Your task to perform on an android device: toggle pop-ups in chrome Image 0: 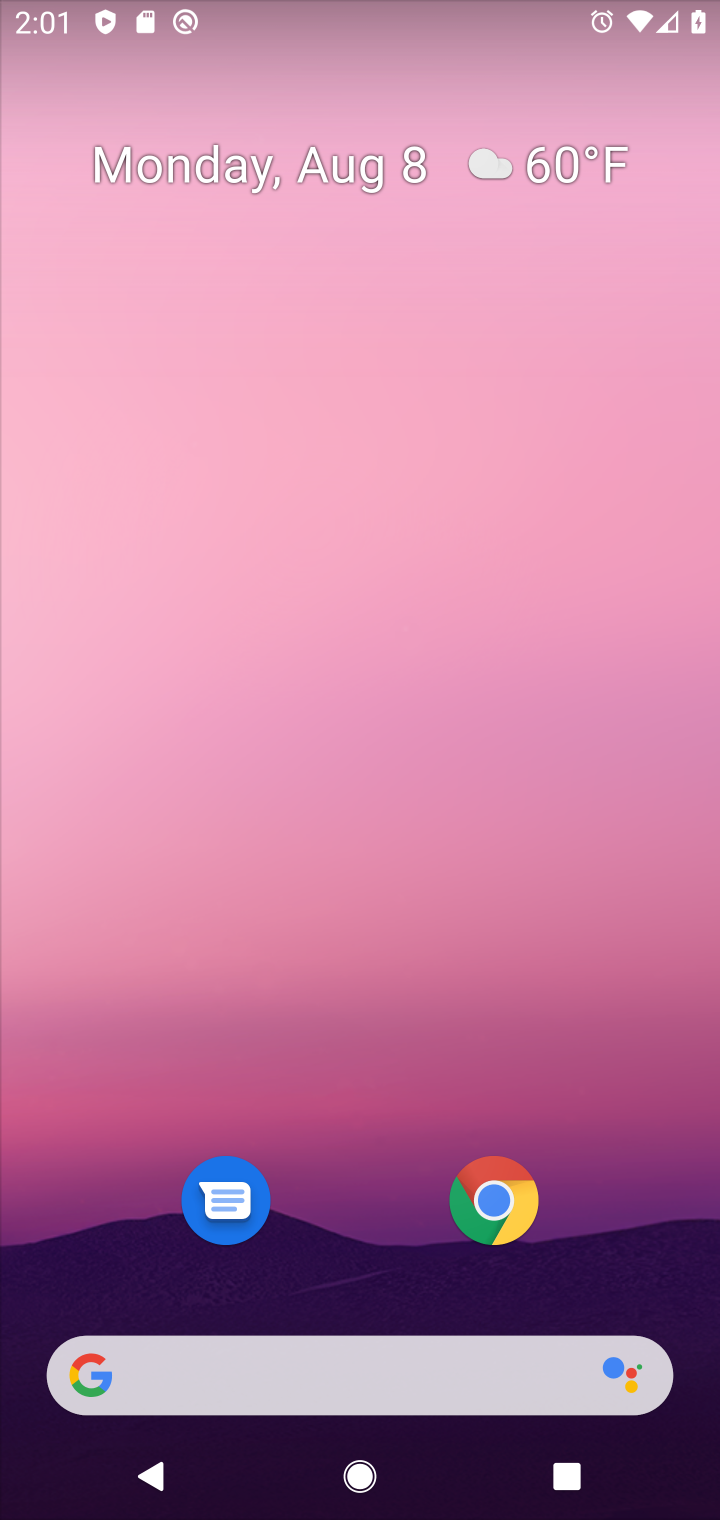
Step 0: click (490, 1184)
Your task to perform on an android device: toggle pop-ups in chrome Image 1: 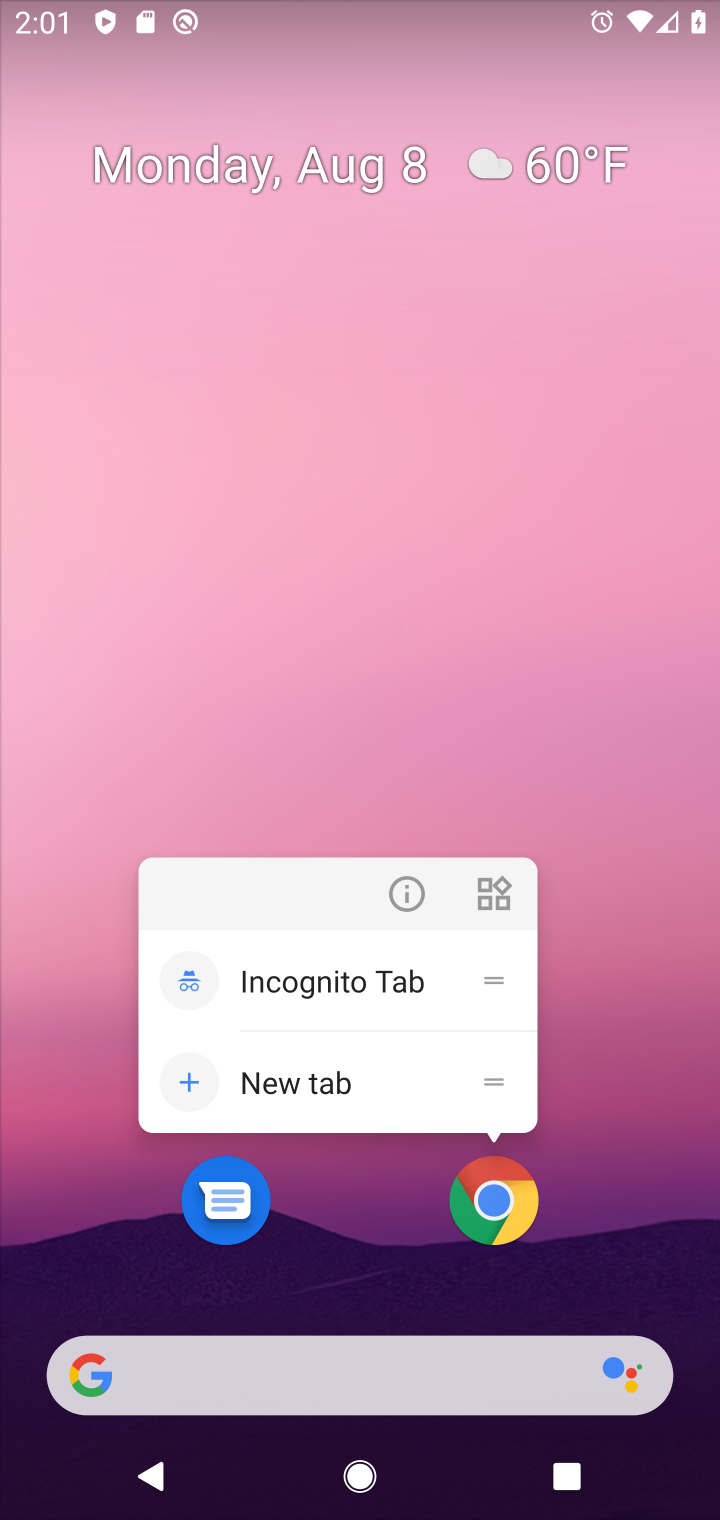
Step 1: click (619, 1097)
Your task to perform on an android device: toggle pop-ups in chrome Image 2: 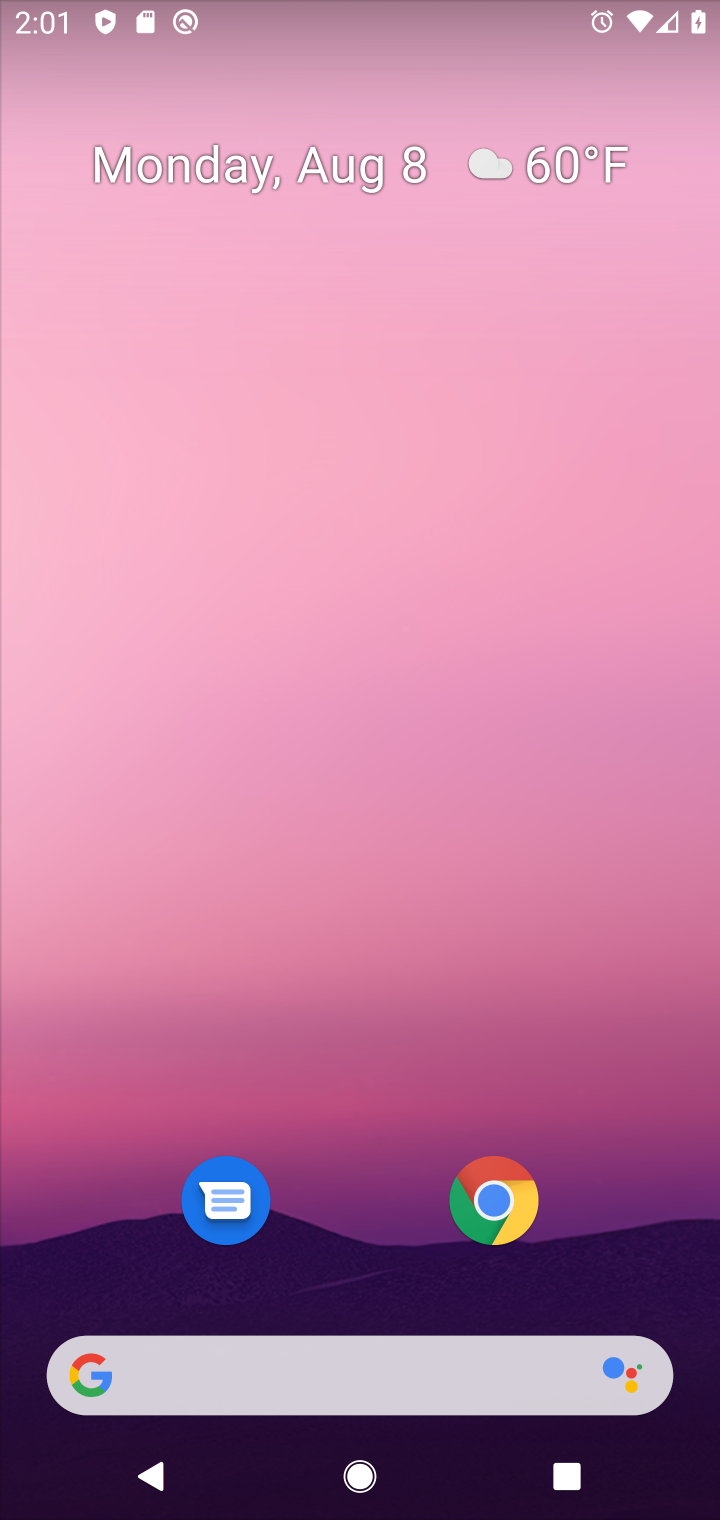
Step 2: drag from (601, 1277) to (589, 91)
Your task to perform on an android device: toggle pop-ups in chrome Image 3: 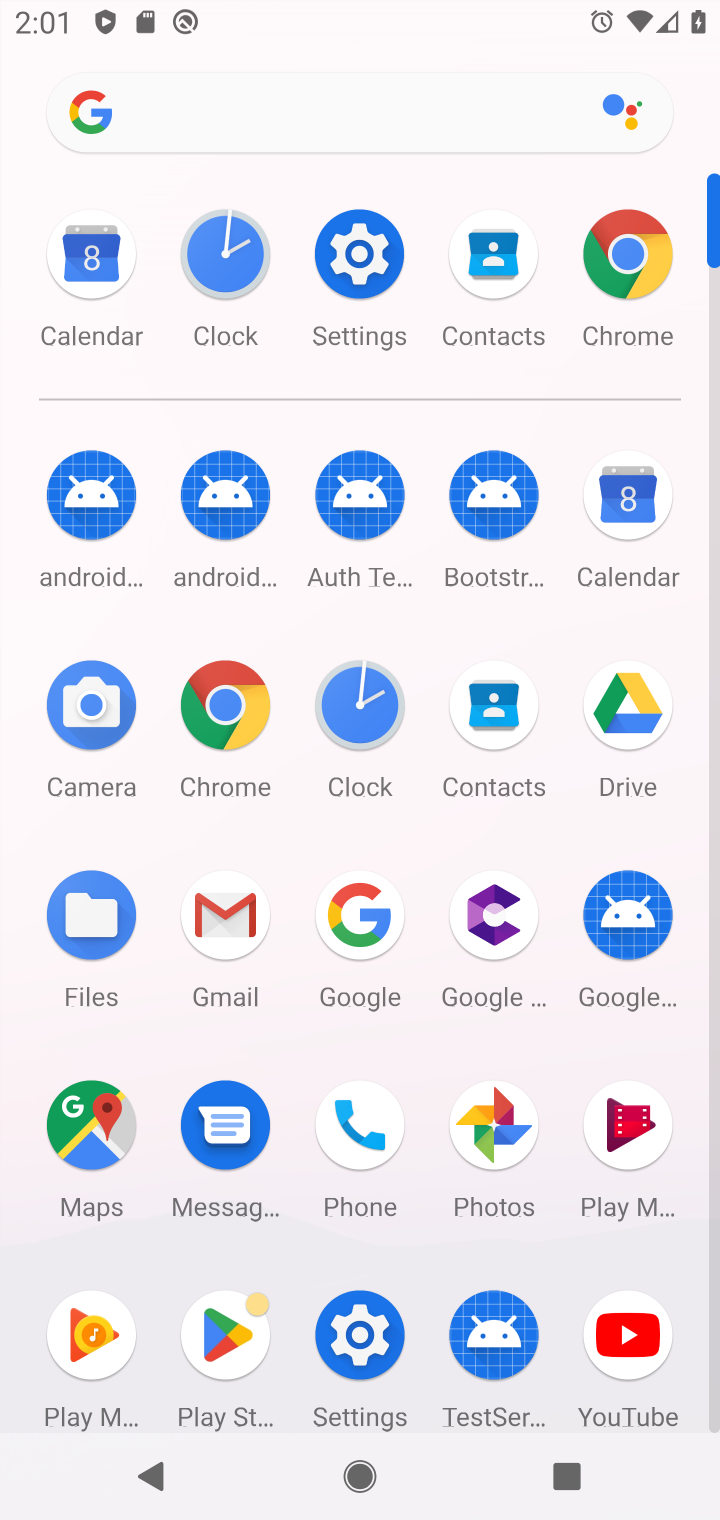
Step 3: click (212, 698)
Your task to perform on an android device: toggle pop-ups in chrome Image 4: 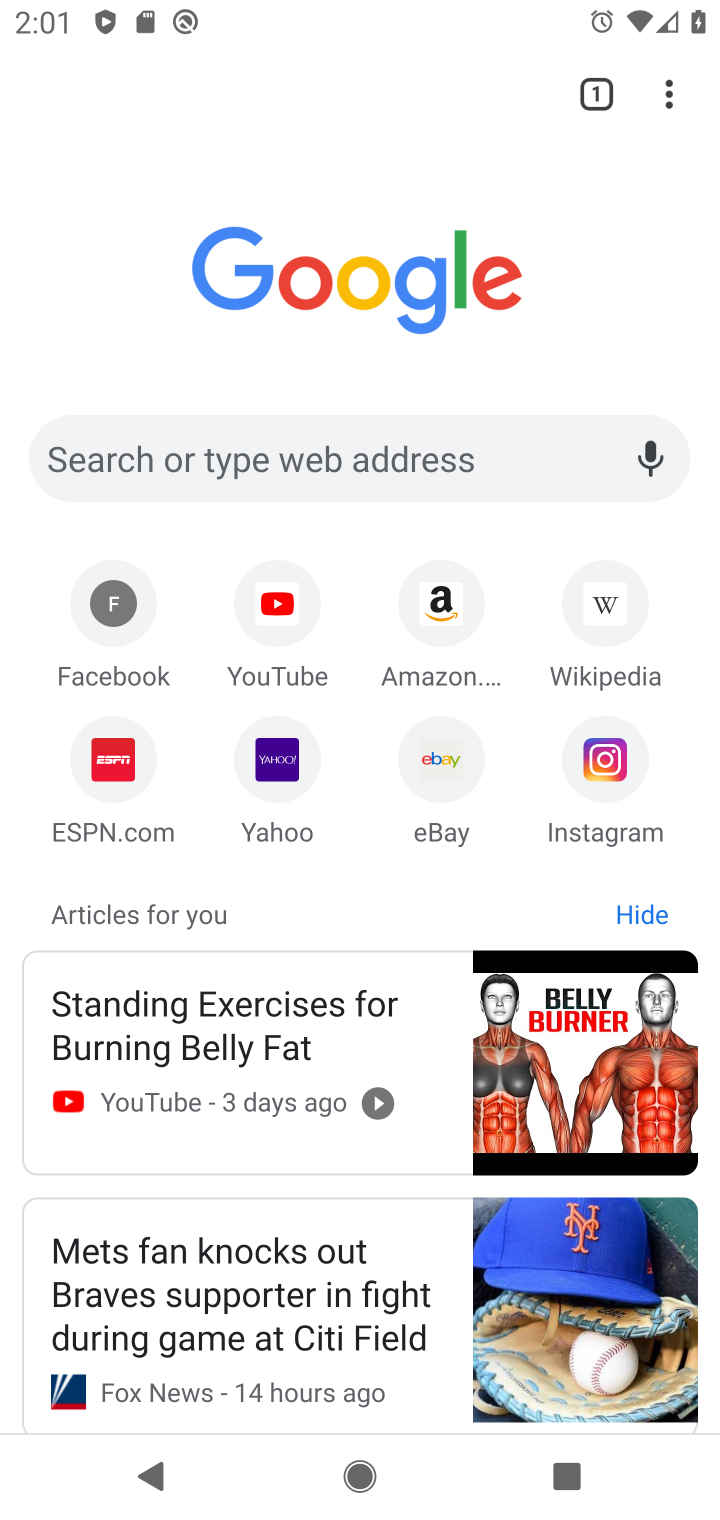
Step 4: click (665, 92)
Your task to perform on an android device: toggle pop-ups in chrome Image 5: 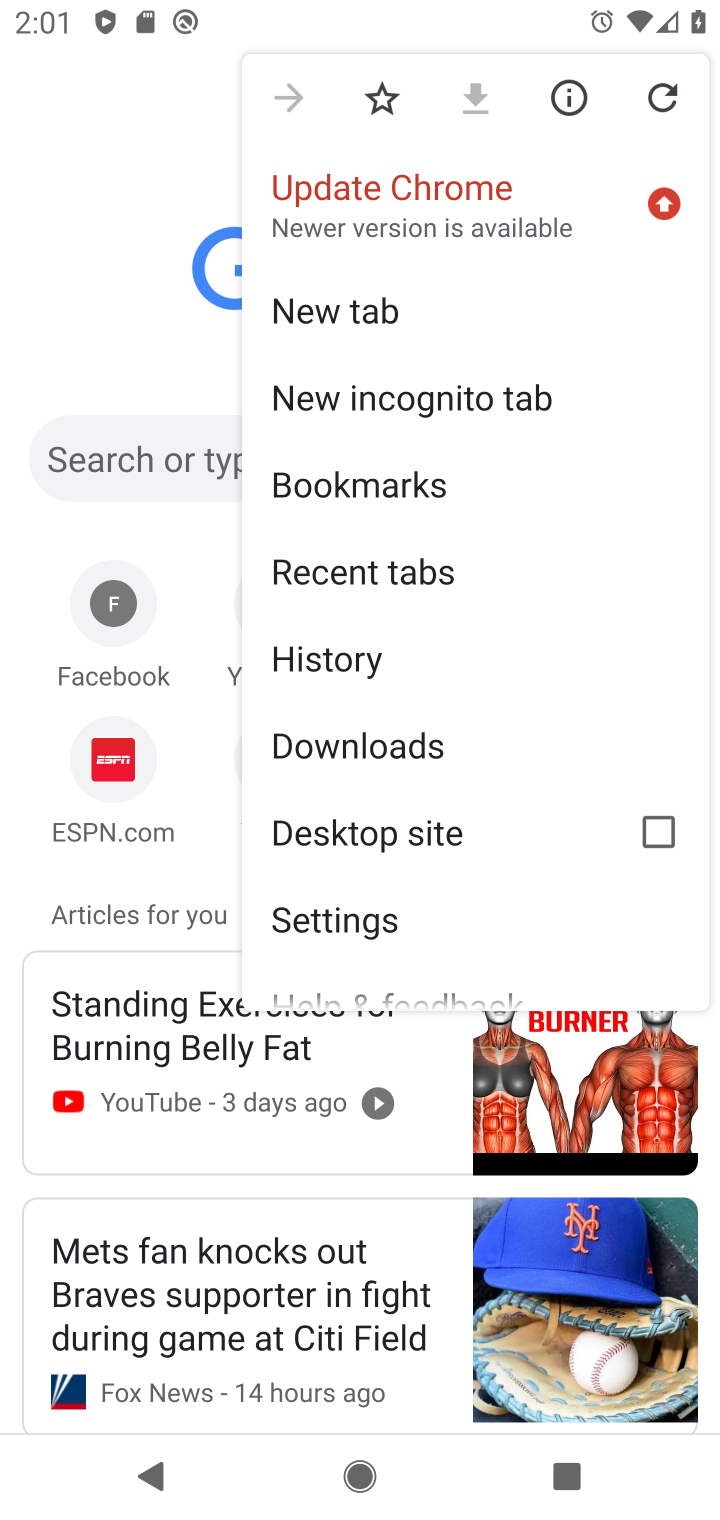
Step 5: click (355, 907)
Your task to perform on an android device: toggle pop-ups in chrome Image 6: 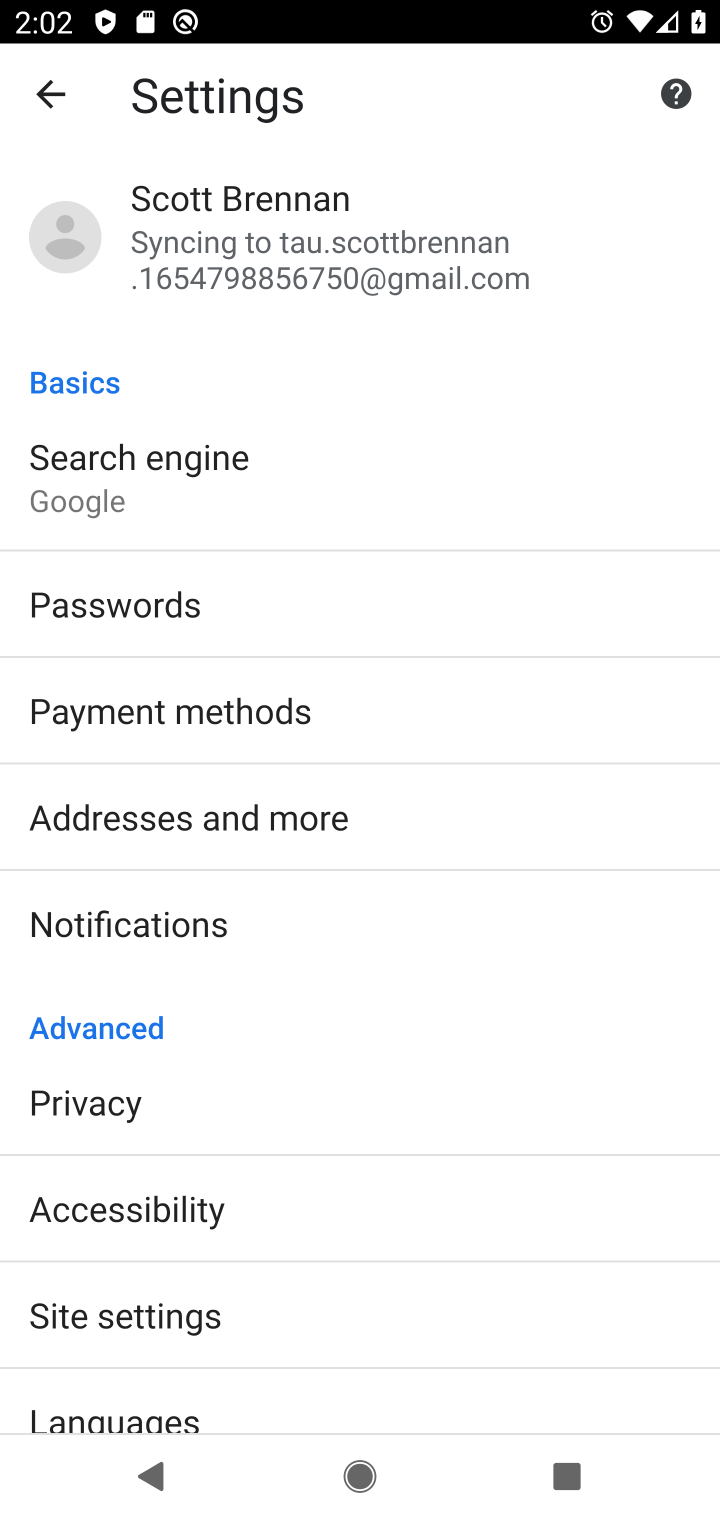
Step 6: click (242, 1300)
Your task to perform on an android device: toggle pop-ups in chrome Image 7: 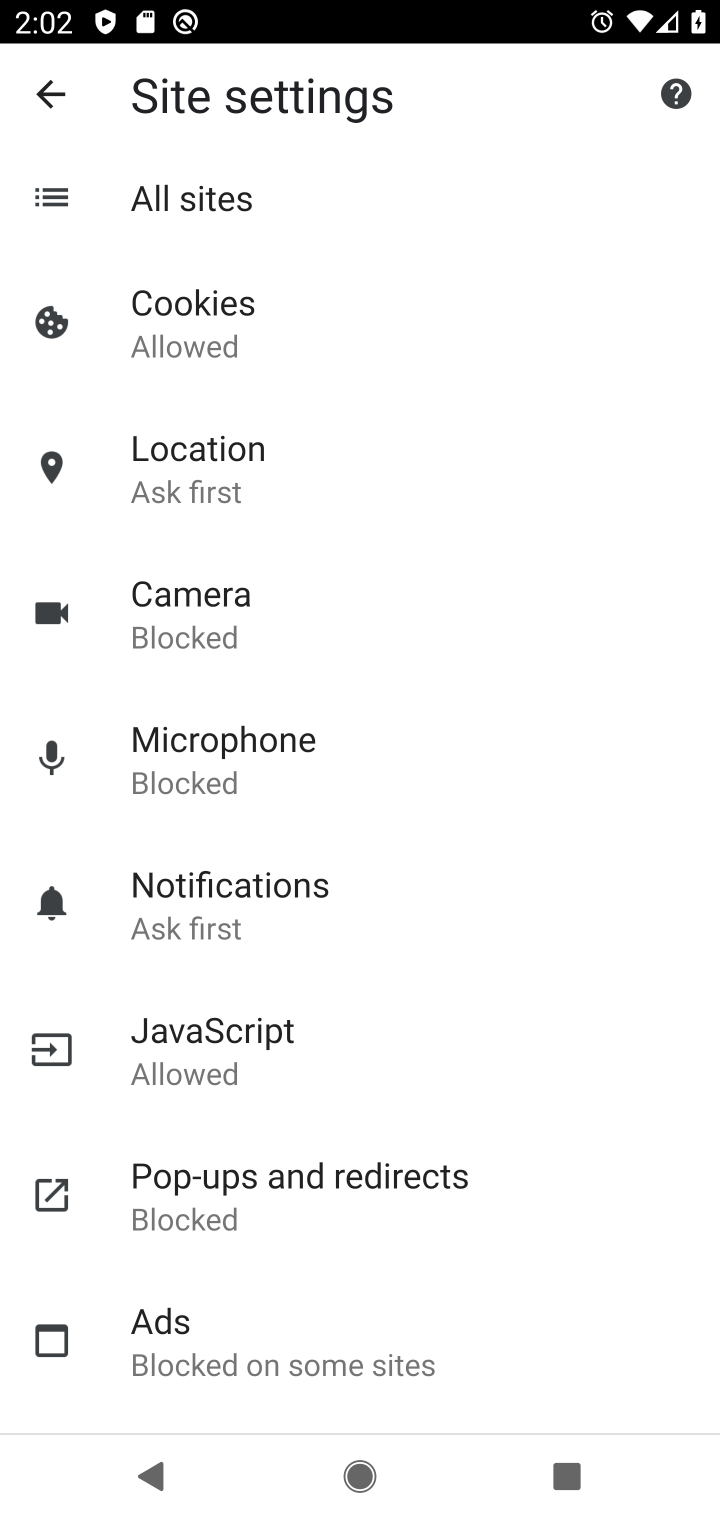
Step 7: click (251, 1193)
Your task to perform on an android device: toggle pop-ups in chrome Image 8: 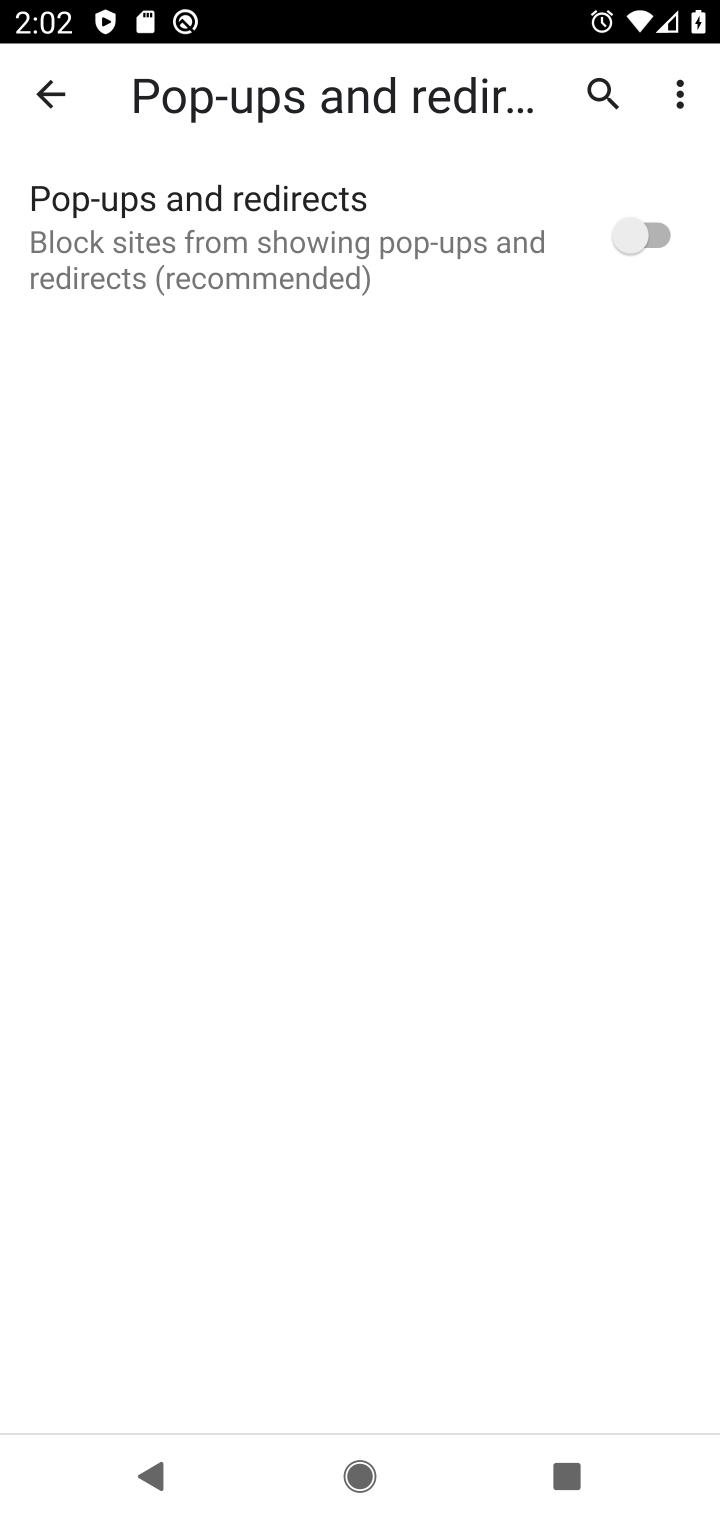
Step 8: click (642, 227)
Your task to perform on an android device: toggle pop-ups in chrome Image 9: 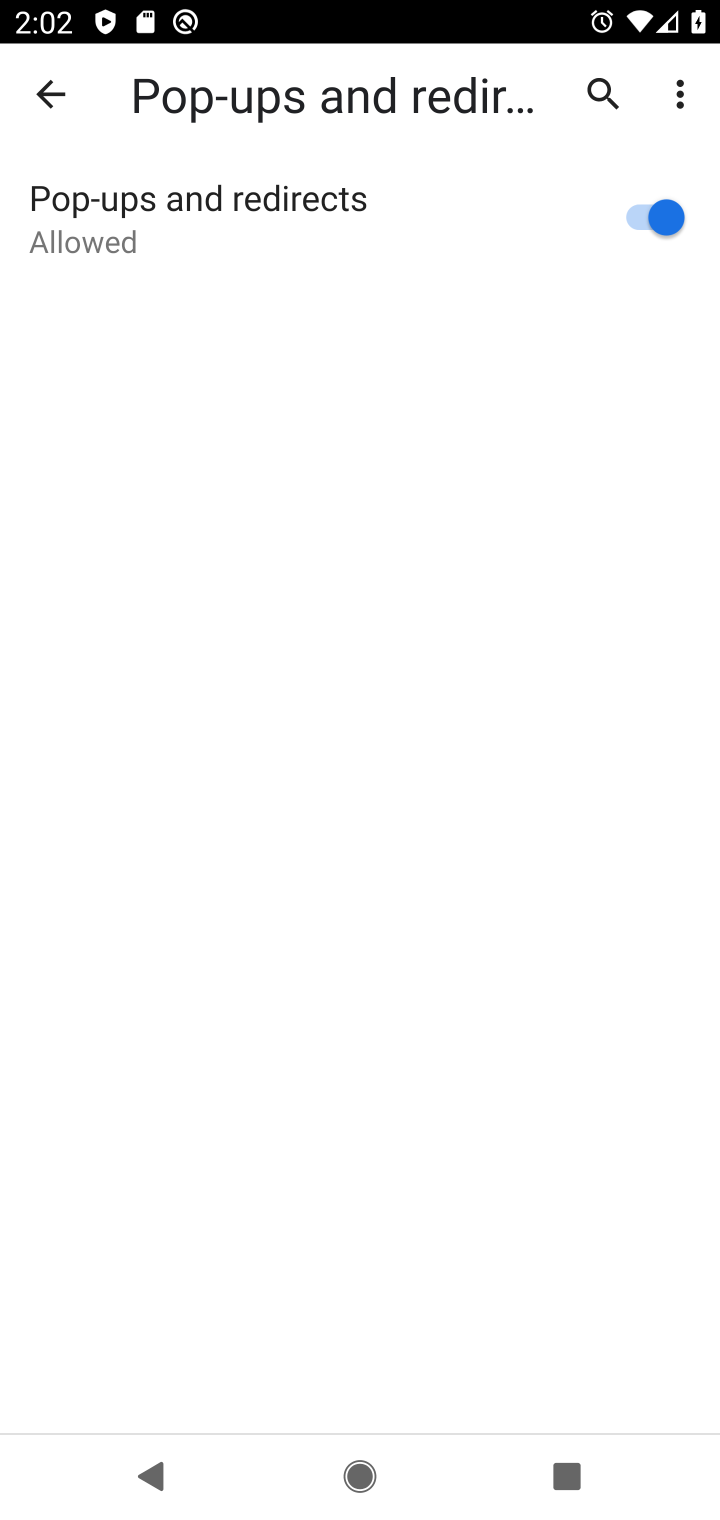
Step 9: task complete